Your task to perform on an android device: Go to internet settings Image 0: 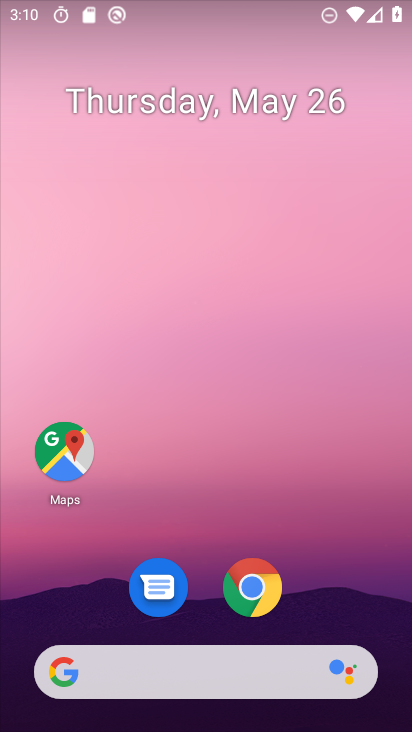
Step 0: drag from (313, 464) to (309, 108)
Your task to perform on an android device: Go to internet settings Image 1: 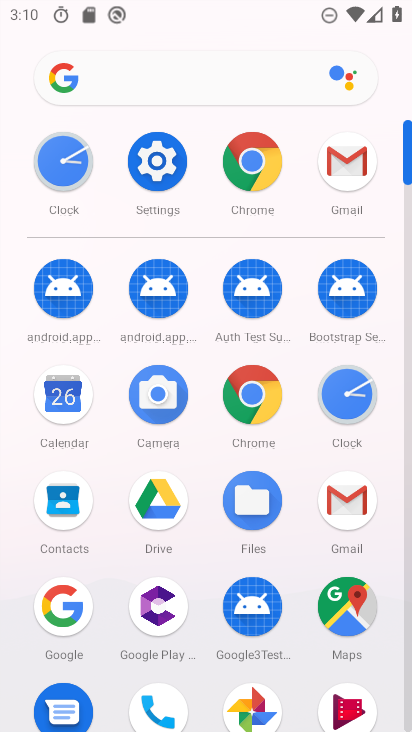
Step 1: click (169, 159)
Your task to perform on an android device: Go to internet settings Image 2: 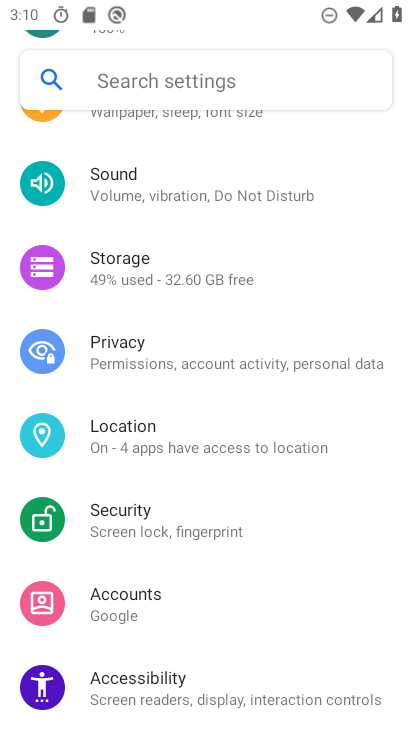
Step 2: drag from (237, 548) to (300, 172)
Your task to perform on an android device: Go to internet settings Image 3: 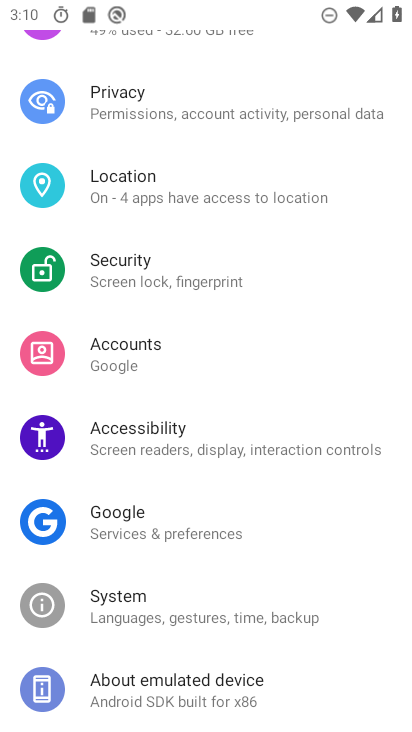
Step 3: drag from (223, 168) to (222, 530)
Your task to perform on an android device: Go to internet settings Image 4: 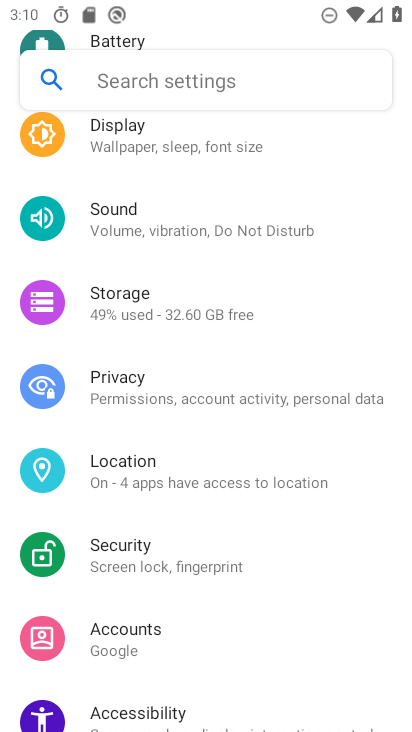
Step 4: drag from (197, 196) to (204, 526)
Your task to perform on an android device: Go to internet settings Image 5: 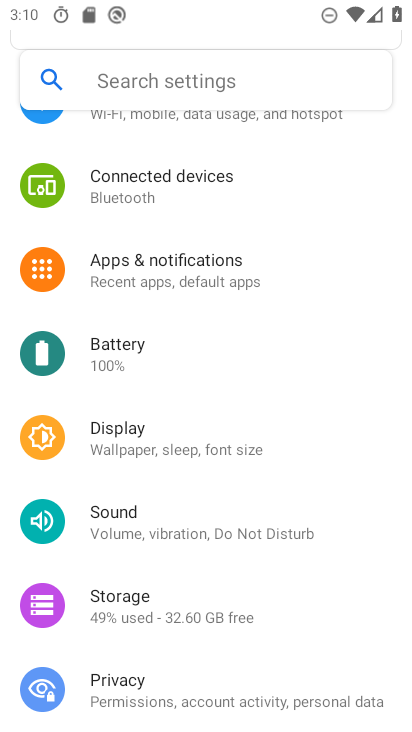
Step 5: drag from (227, 541) to (268, 223)
Your task to perform on an android device: Go to internet settings Image 6: 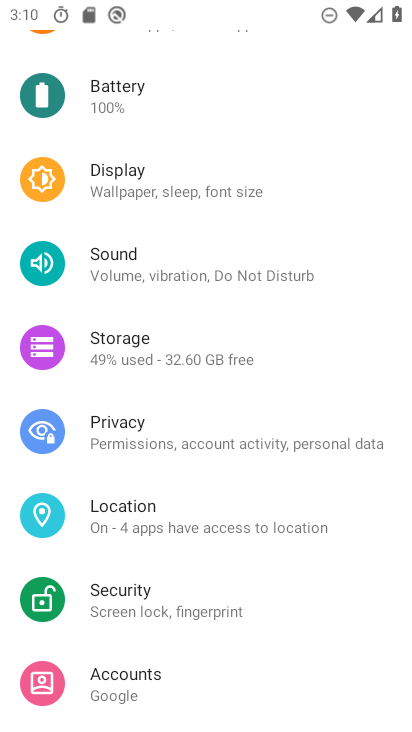
Step 6: drag from (238, 458) to (227, 704)
Your task to perform on an android device: Go to internet settings Image 7: 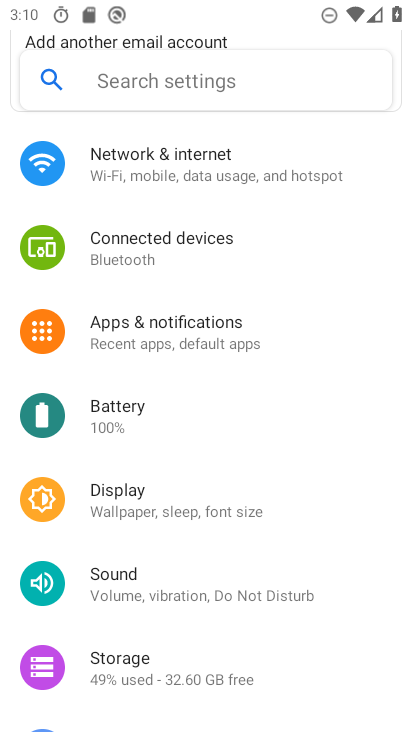
Step 7: drag from (184, 180) to (179, 555)
Your task to perform on an android device: Go to internet settings Image 8: 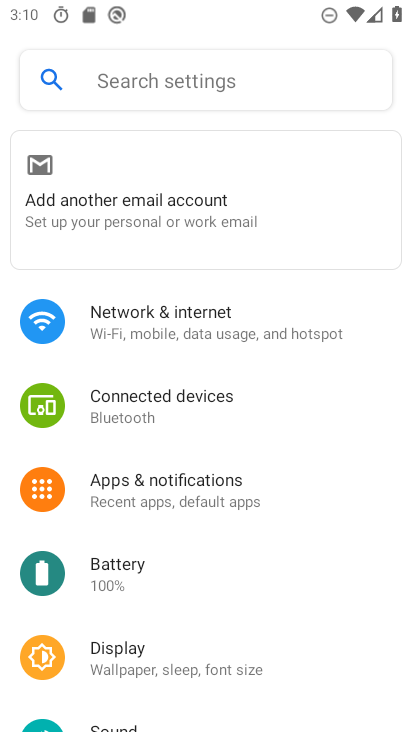
Step 8: click (173, 329)
Your task to perform on an android device: Go to internet settings Image 9: 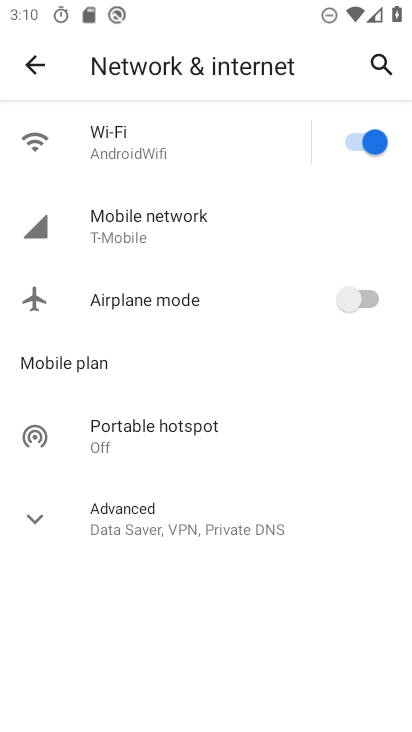
Step 9: task complete